Your task to perform on an android device: When is my next appointment? Image 0: 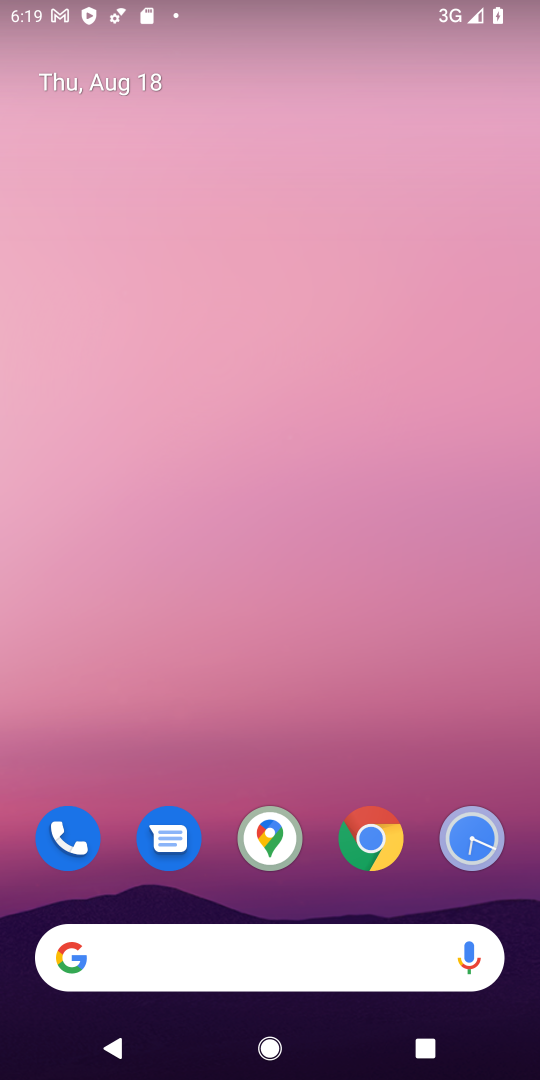
Step 0: press home button
Your task to perform on an android device: When is my next appointment? Image 1: 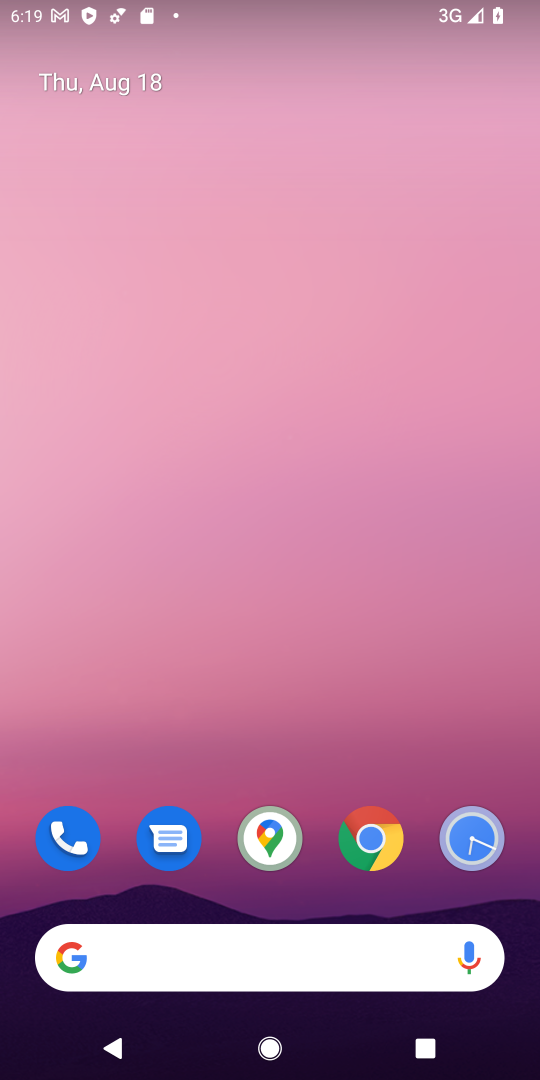
Step 1: drag from (325, 905) to (314, 146)
Your task to perform on an android device: When is my next appointment? Image 2: 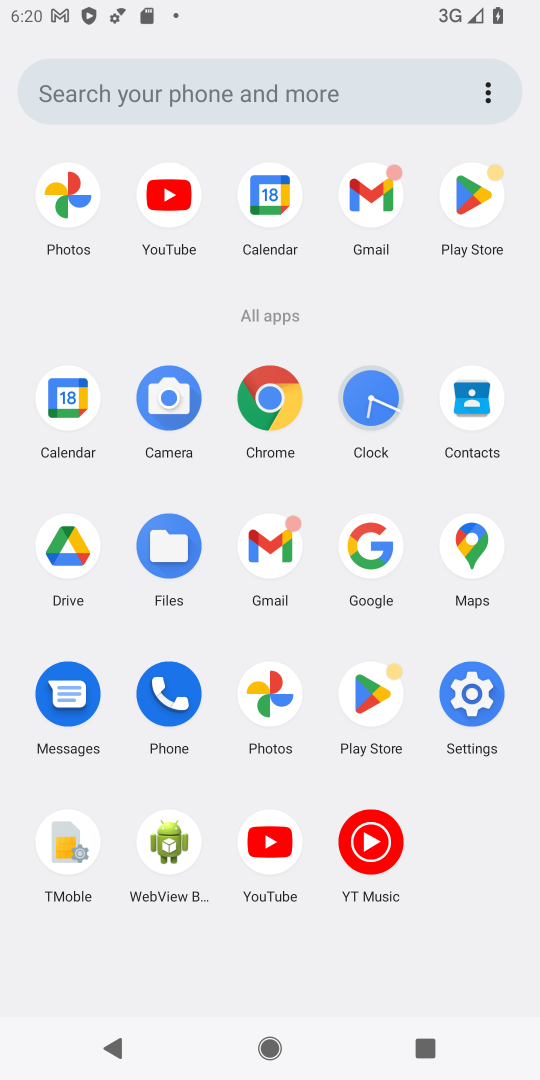
Step 2: click (265, 193)
Your task to perform on an android device: When is my next appointment? Image 3: 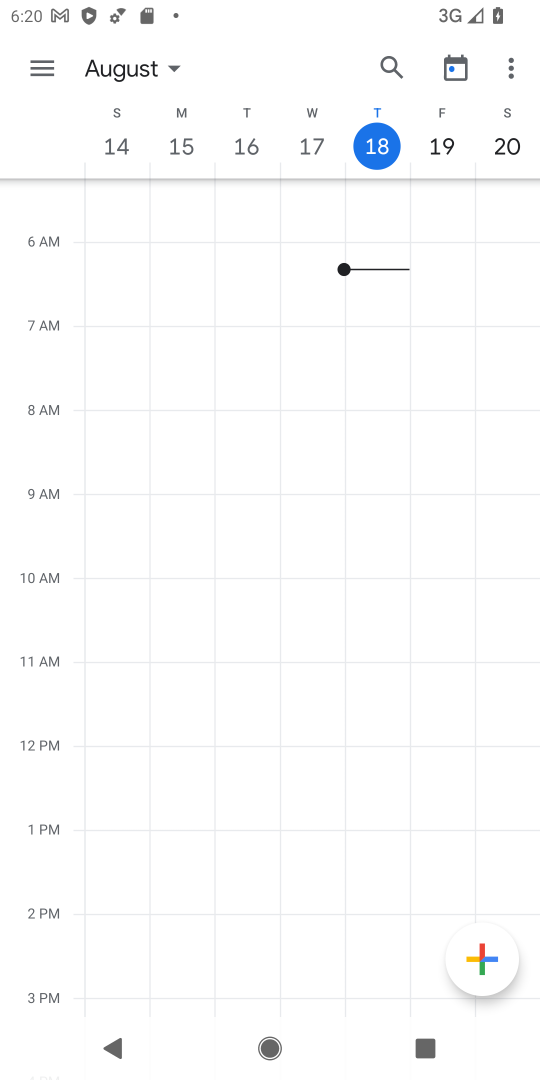
Step 3: click (35, 62)
Your task to perform on an android device: When is my next appointment? Image 4: 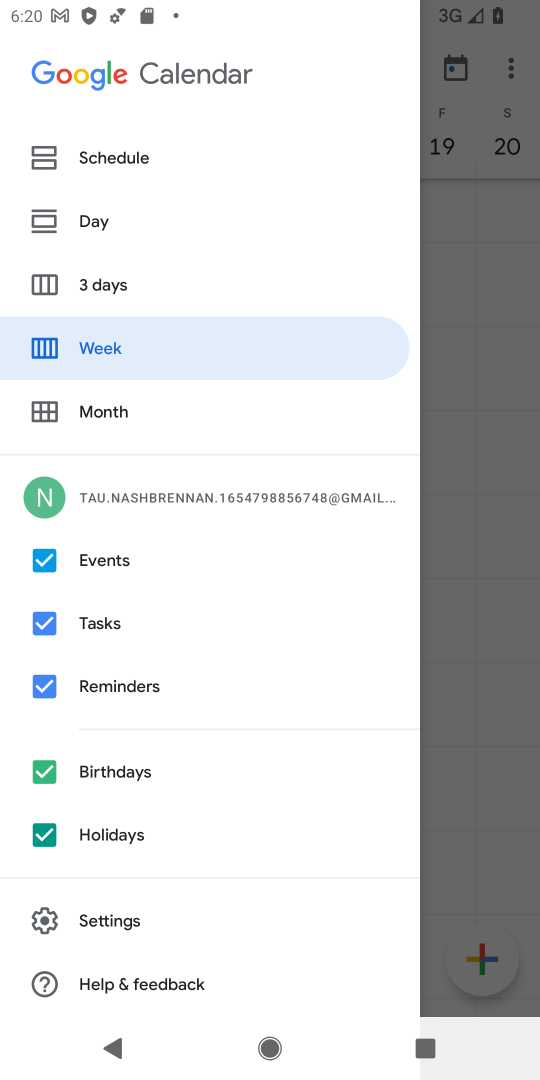
Step 4: click (118, 161)
Your task to perform on an android device: When is my next appointment? Image 5: 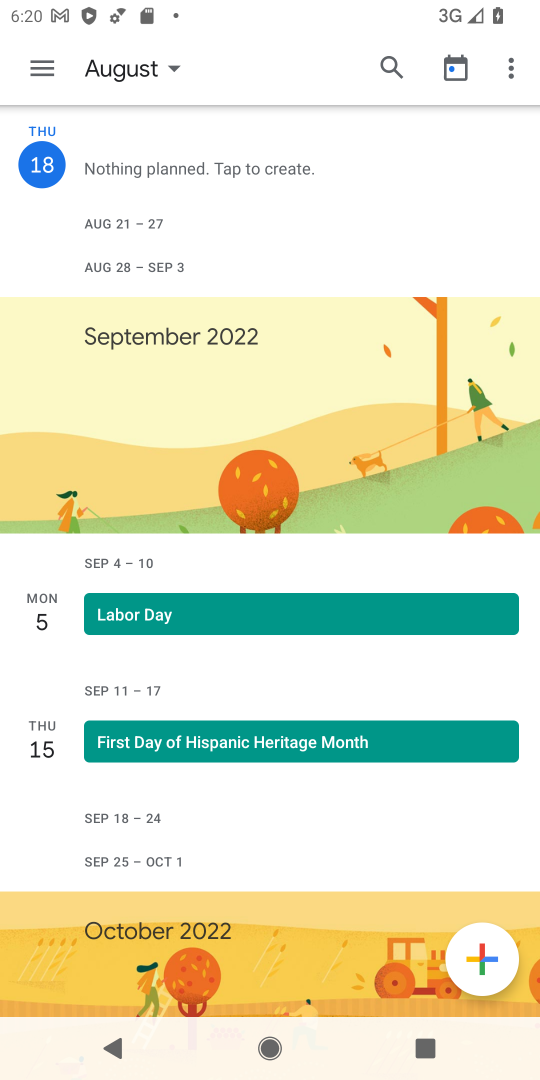
Step 5: task complete